Your task to perform on an android device: stop showing notifications on the lock screen Image 0: 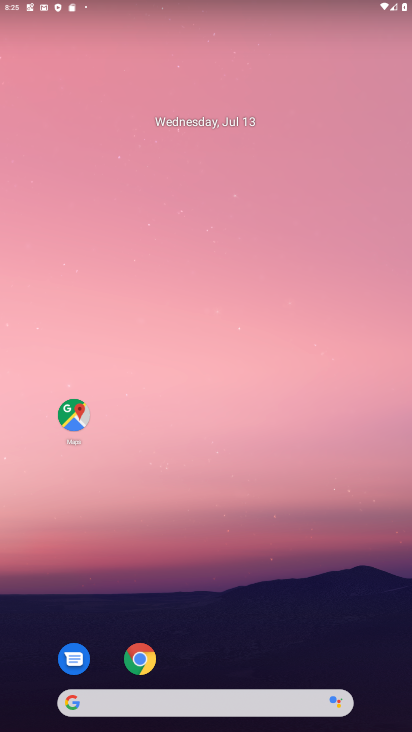
Step 0: drag from (7, 722) to (224, 87)
Your task to perform on an android device: stop showing notifications on the lock screen Image 1: 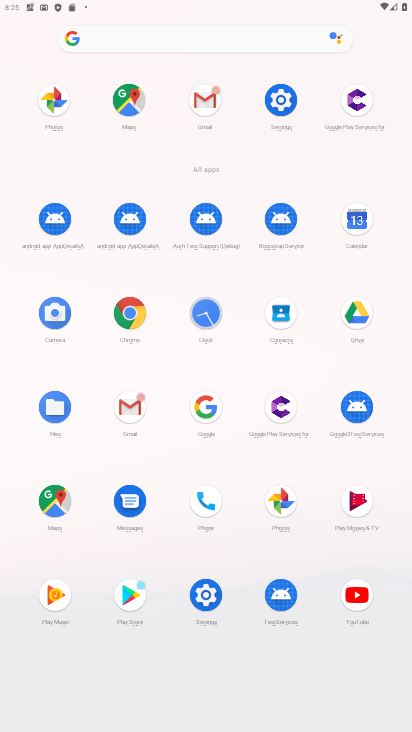
Step 1: click (208, 597)
Your task to perform on an android device: stop showing notifications on the lock screen Image 2: 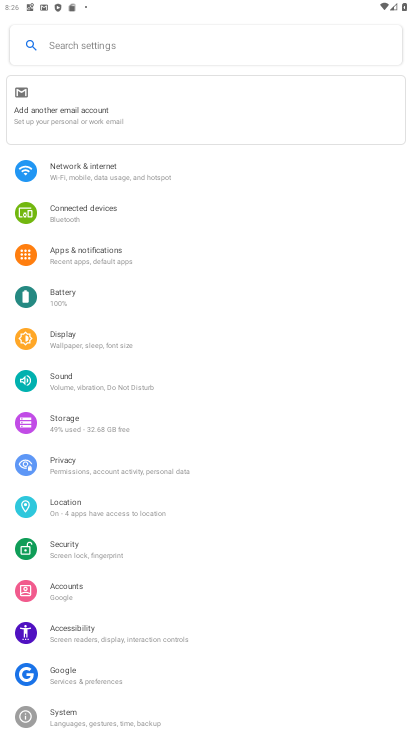
Step 2: click (86, 255)
Your task to perform on an android device: stop showing notifications on the lock screen Image 3: 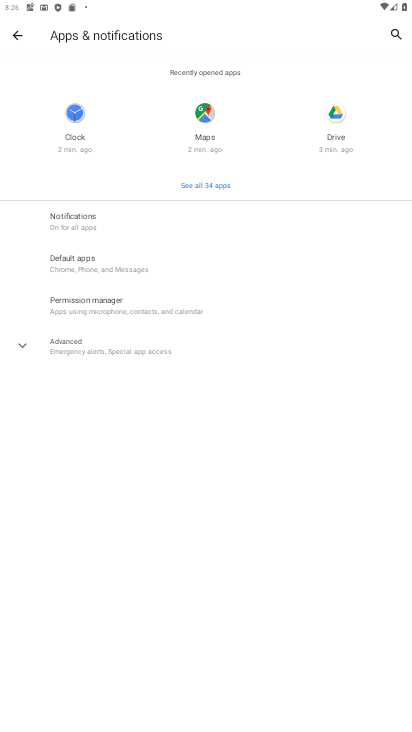
Step 3: click (84, 339)
Your task to perform on an android device: stop showing notifications on the lock screen Image 4: 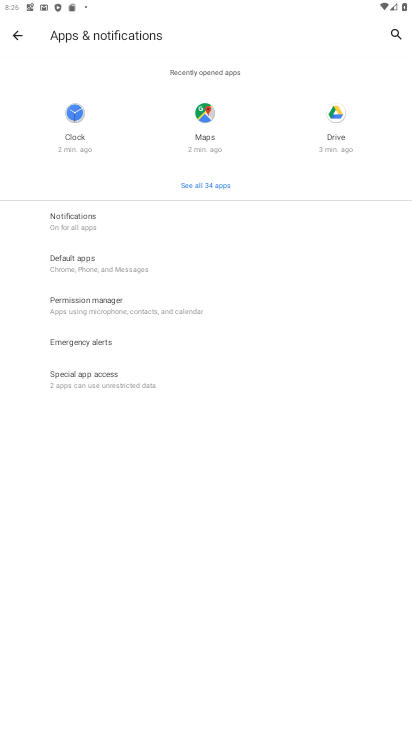
Step 4: click (95, 373)
Your task to perform on an android device: stop showing notifications on the lock screen Image 5: 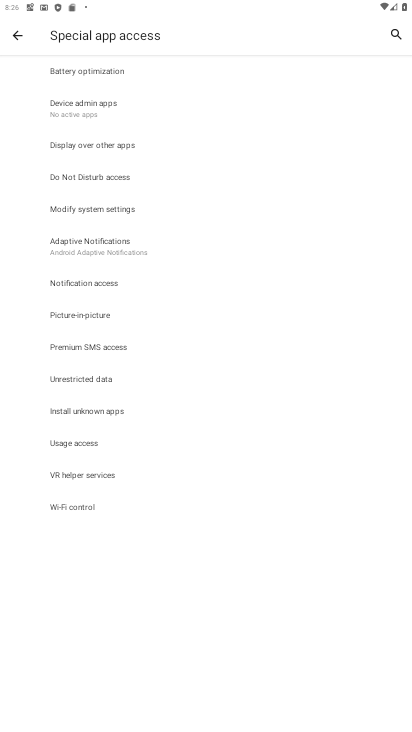
Step 5: task complete